Your task to perform on an android device: Open calendar and show me the second week of next month Image 0: 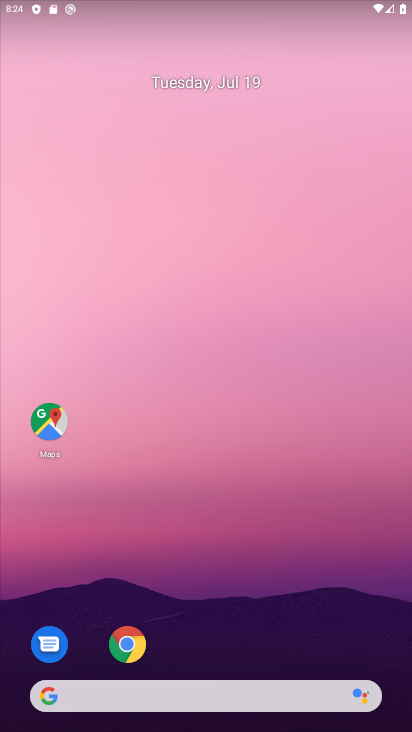
Step 0: drag from (190, 618) to (185, 91)
Your task to perform on an android device: Open calendar and show me the second week of next month Image 1: 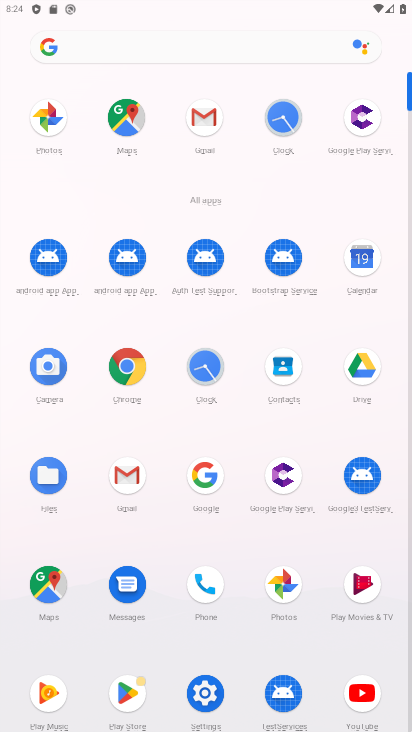
Step 1: drag from (181, 579) to (265, 35)
Your task to perform on an android device: Open calendar and show me the second week of next month Image 2: 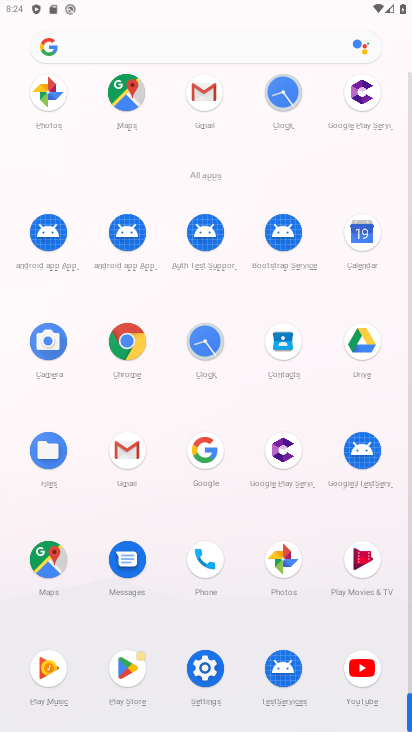
Step 2: click (359, 236)
Your task to perform on an android device: Open calendar and show me the second week of next month Image 3: 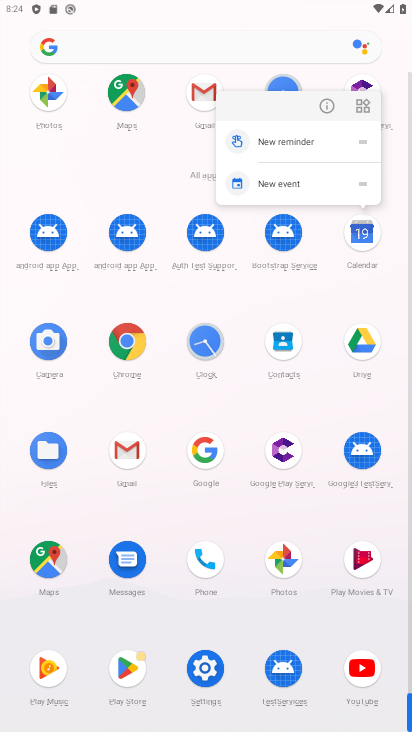
Step 3: click (321, 106)
Your task to perform on an android device: Open calendar and show me the second week of next month Image 4: 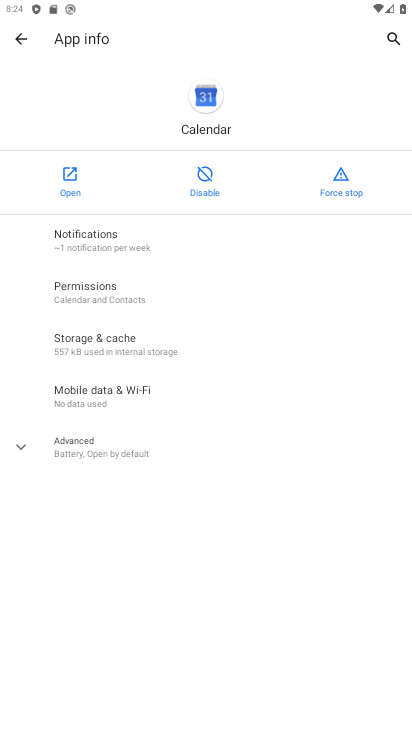
Step 4: click (56, 183)
Your task to perform on an android device: Open calendar and show me the second week of next month Image 5: 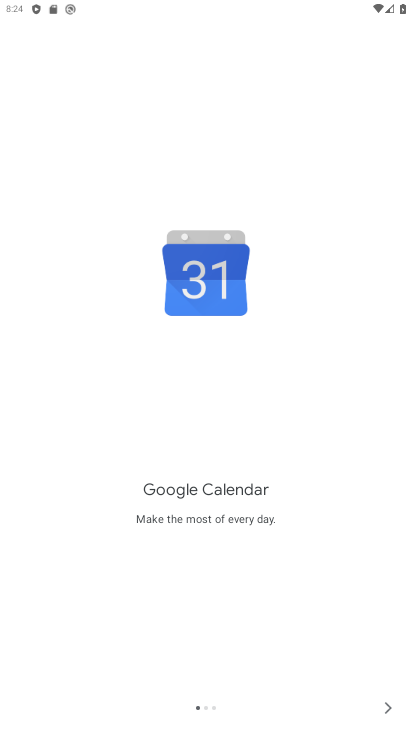
Step 5: click (379, 716)
Your task to perform on an android device: Open calendar and show me the second week of next month Image 6: 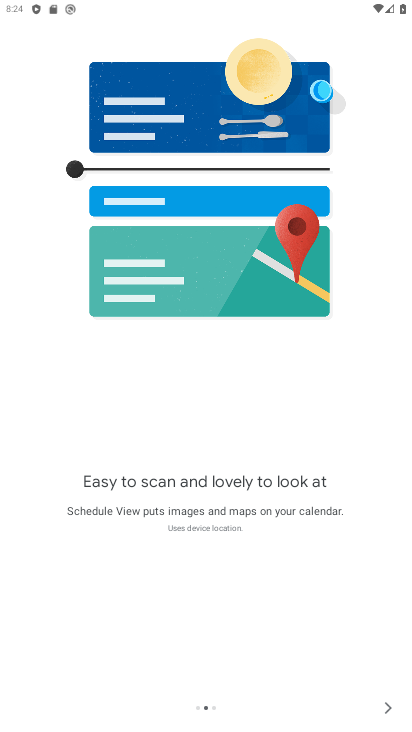
Step 6: click (383, 711)
Your task to perform on an android device: Open calendar and show me the second week of next month Image 7: 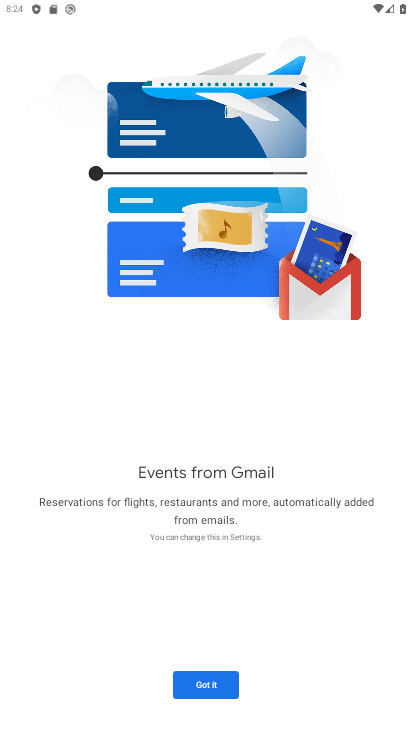
Step 7: click (206, 690)
Your task to perform on an android device: Open calendar and show me the second week of next month Image 8: 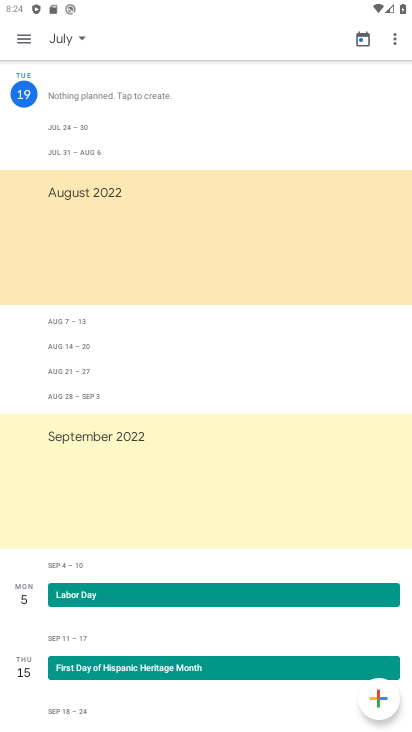
Step 8: click (68, 37)
Your task to perform on an android device: Open calendar and show me the second week of next month Image 9: 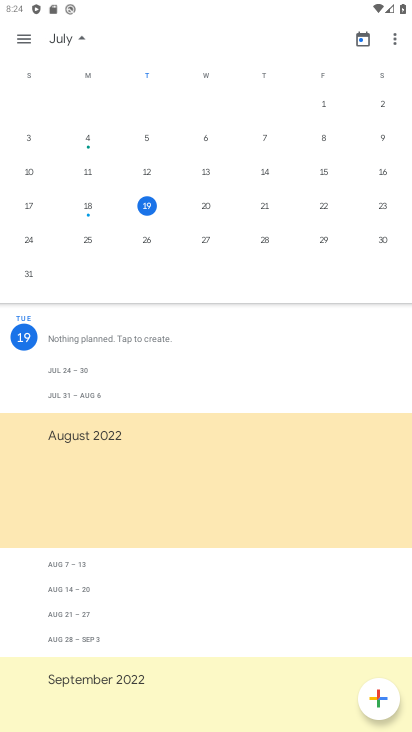
Step 9: drag from (299, 163) to (5, 159)
Your task to perform on an android device: Open calendar and show me the second week of next month Image 10: 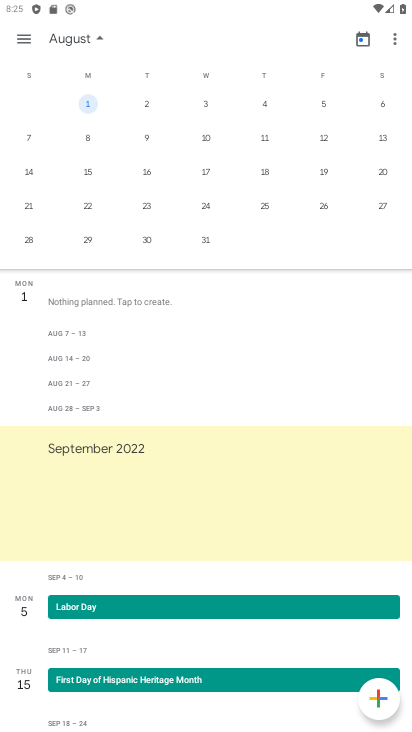
Step 10: click (316, 175)
Your task to perform on an android device: Open calendar and show me the second week of next month Image 11: 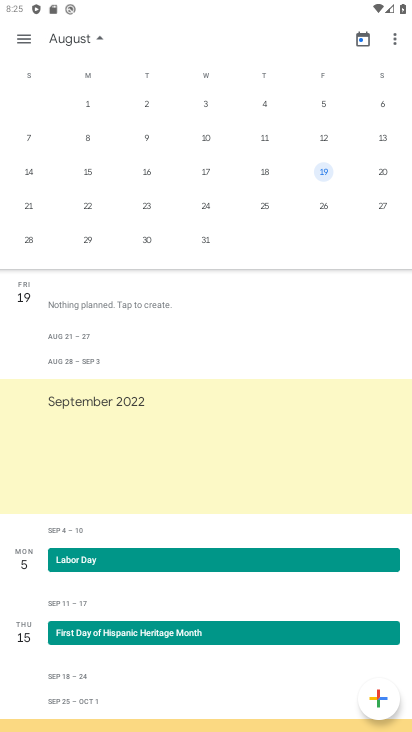
Step 11: click (319, 142)
Your task to perform on an android device: Open calendar and show me the second week of next month Image 12: 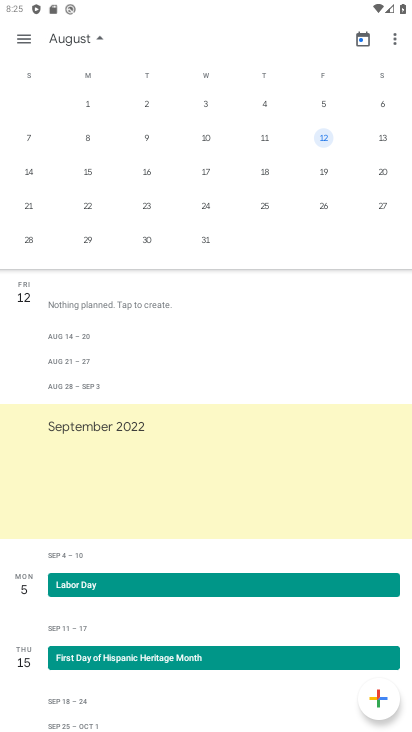
Step 12: task complete